Your task to perform on an android device: add a label to a message in the gmail app Image 0: 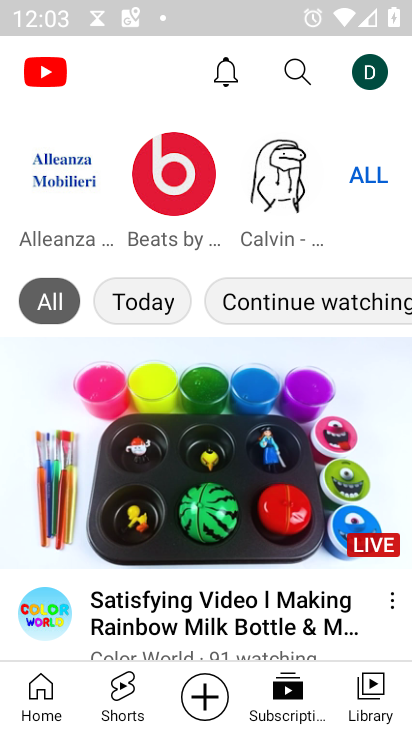
Step 0: press home button
Your task to perform on an android device: add a label to a message in the gmail app Image 1: 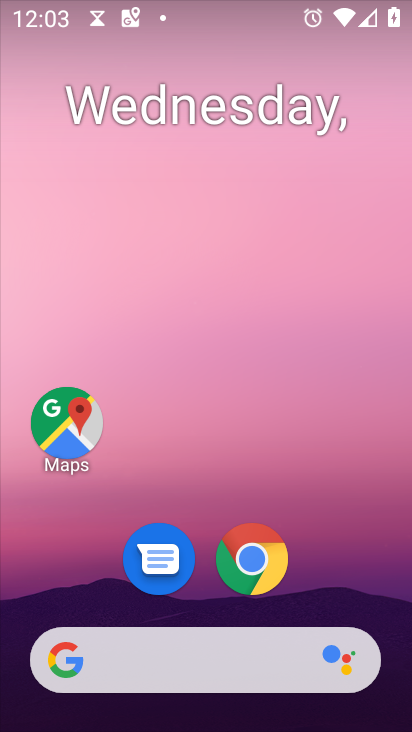
Step 1: drag from (391, 582) to (388, 34)
Your task to perform on an android device: add a label to a message in the gmail app Image 2: 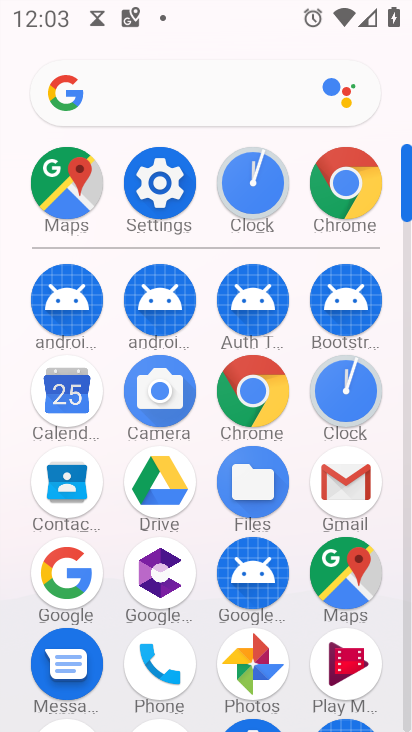
Step 2: click (345, 480)
Your task to perform on an android device: add a label to a message in the gmail app Image 3: 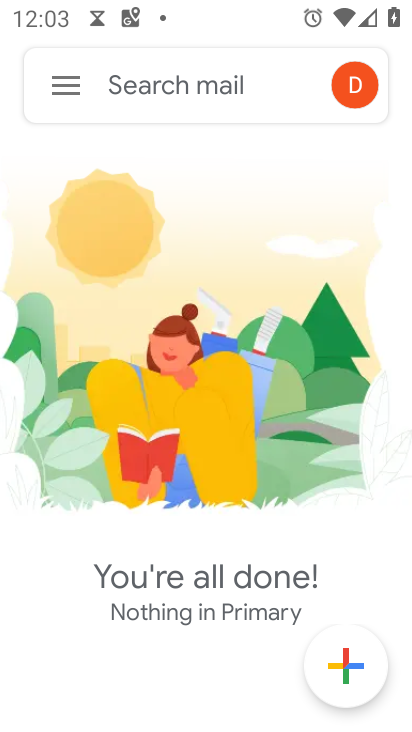
Step 3: click (50, 104)
Your task to perform on an android device: add a label to a message in the gmail app Image 4: 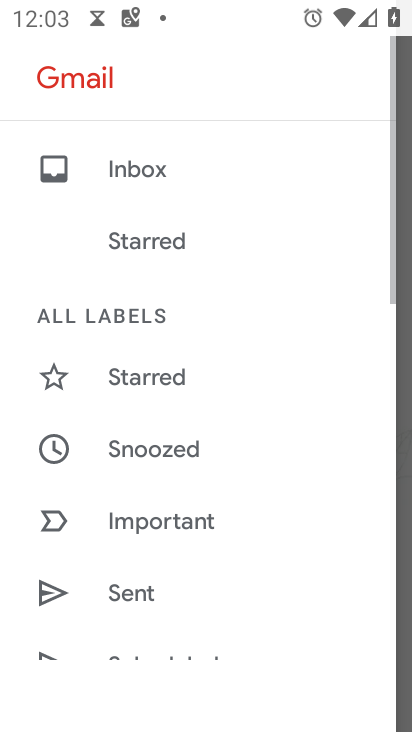
Step 4: drag from (195, 640) to (222, 315)
Your task to perform on an android device: add a label to a message in the gmail app Image 5: 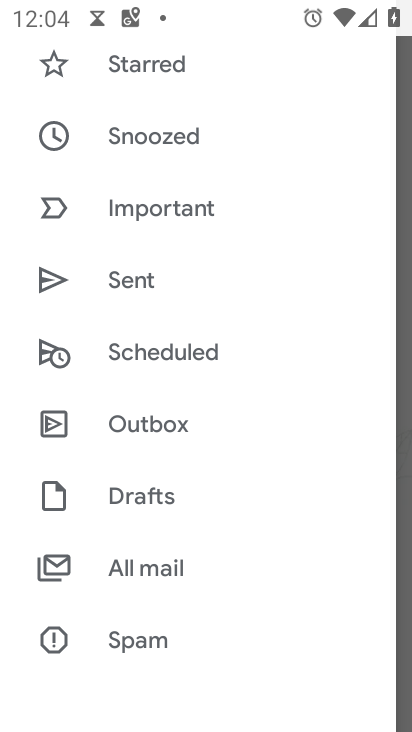
Step 5: drag from (209, 165) to (225, 666)
Your task to perform on an android device: add a label to a message in the gmail app Image 6: 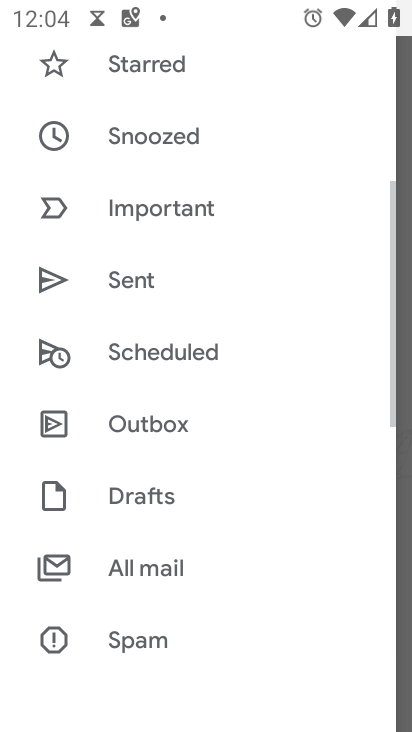
Step 6: drag from (141, 156) to (212, 634)
Your task to perform on an android device: add a label to a message in the gmail app Image 7: 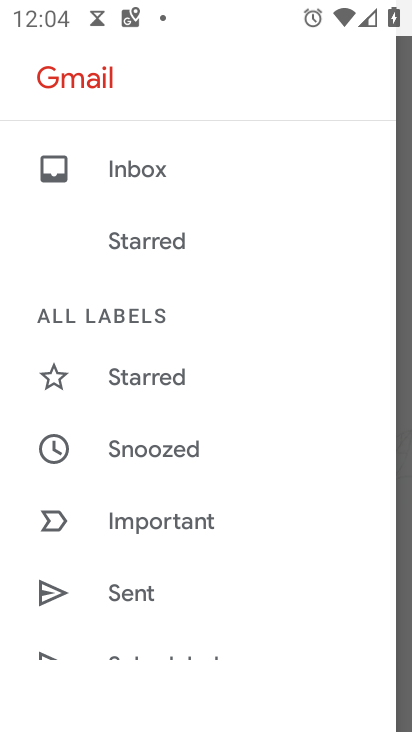
Step 7: click (114, 177)
Your task to perform on an android device: add a label to a message in the gmail app Image 8: 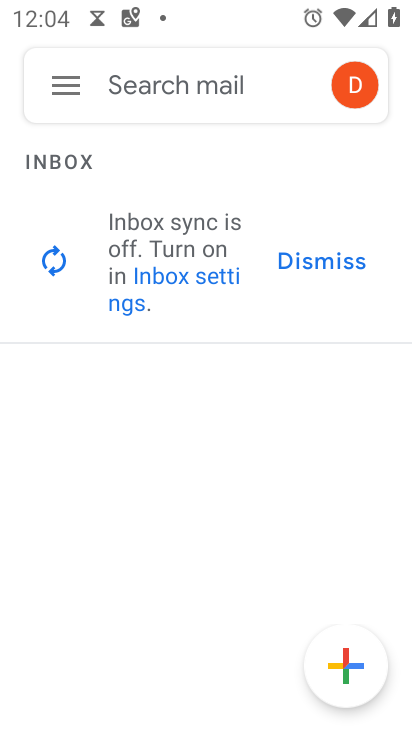
Step 8: task complete